Your task to perform on an android device: change the clock style Image 0: 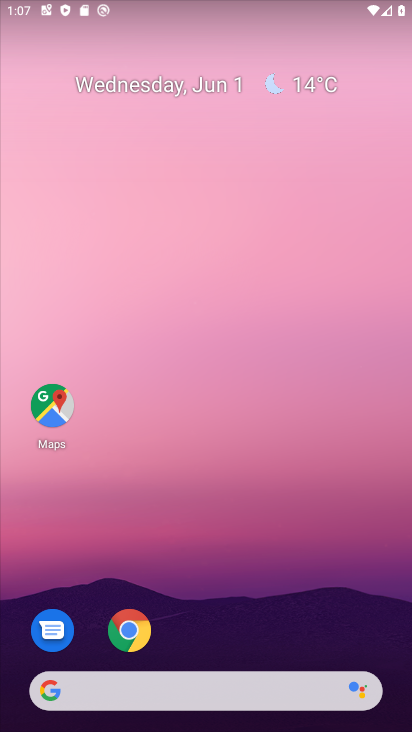
Step 0: drag from (256, 479) to (309, 102)
Your task to perform on an android device: change the clock style Image 1: 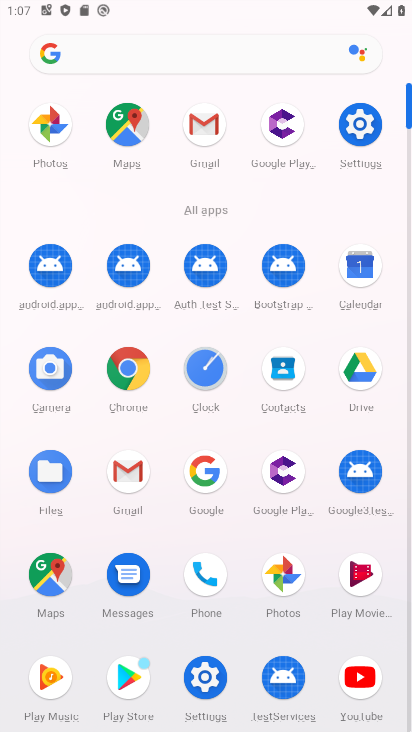
Step 1: click (199, 363)
Your task to perform on an android device: change the clock style Image 2: 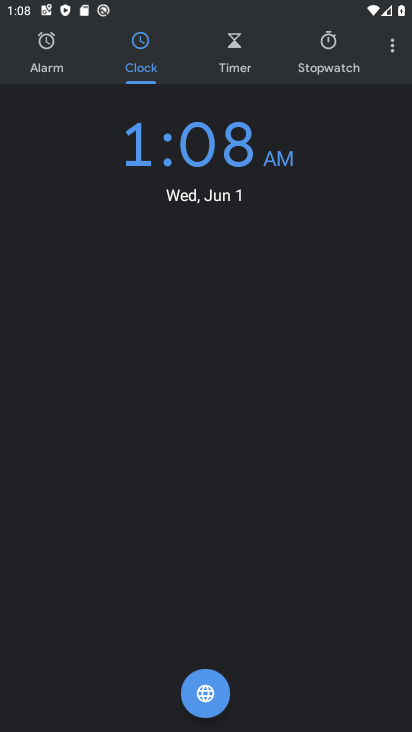
Step 2: click (400, 37)
Your task to perform on an android device: change the clock style Image 3: 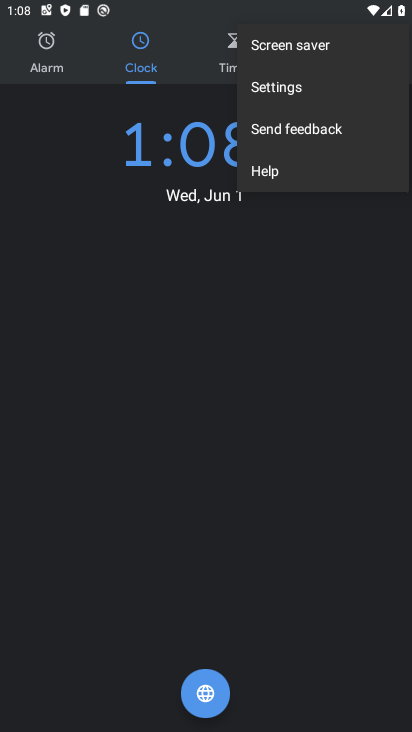
Step 3: click (321, 92)
Your task to perform on an android device: change the clock style Image 4: 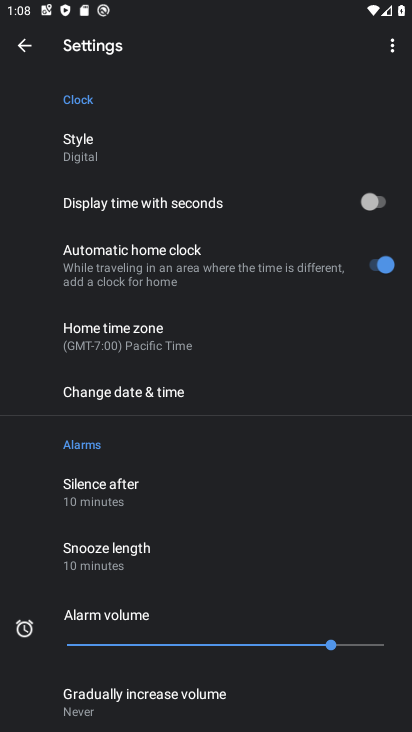
Step 4: click (98, 136)
Your task to perform on an android device: change the clock style Image 5: 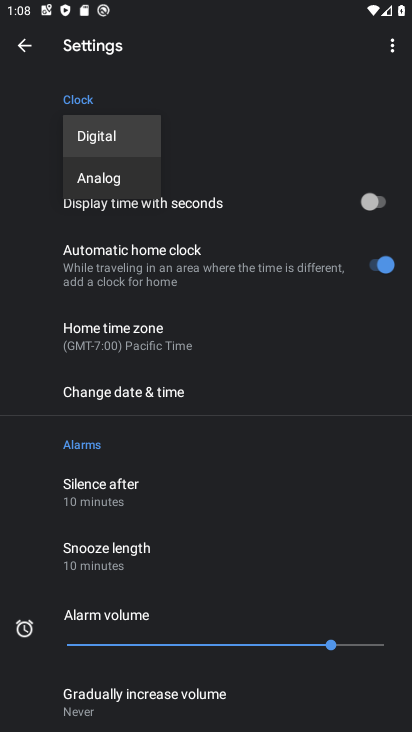
Step 5: click (138, 174)
Your task to perform on an android device: change the clock style Image 6: 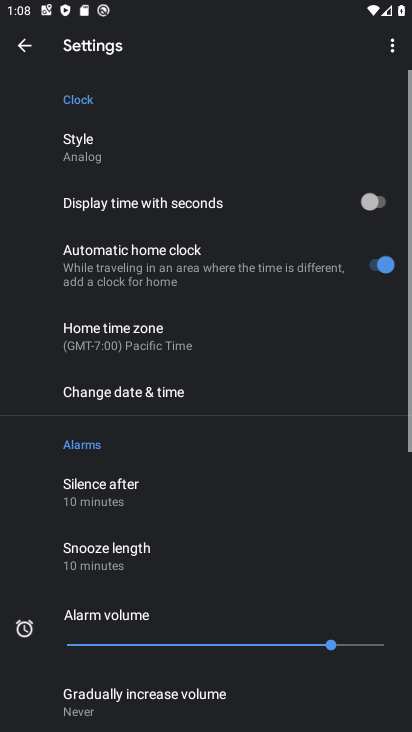
Step 6: task complete